Your task to perform on an android device: toggle show notifications on the lock screen Image 0: 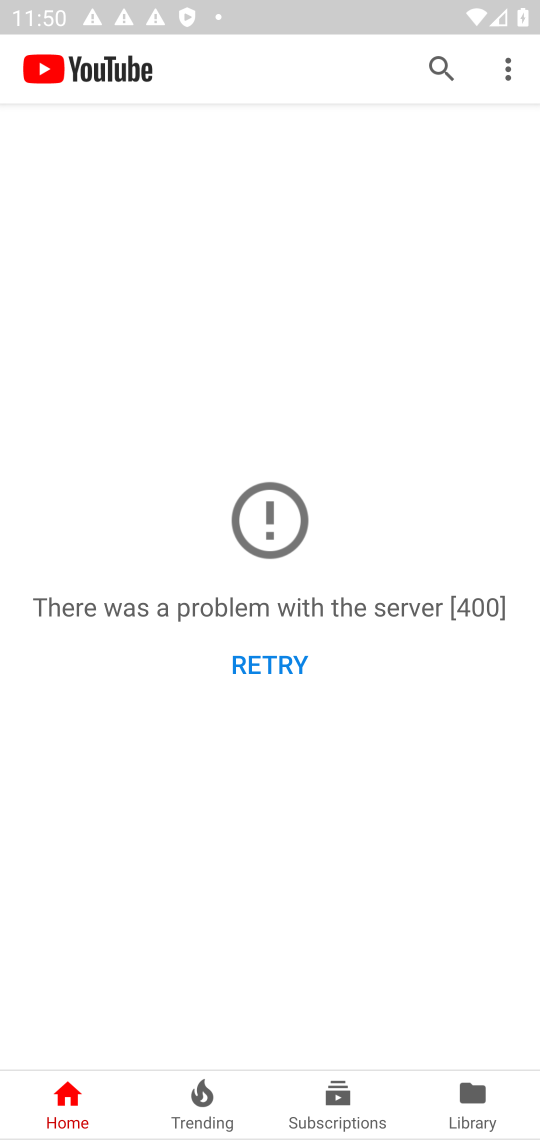
Step 0: press home button
Your task to perform on an android device: toggle show notifications on the lock screen Image 1: 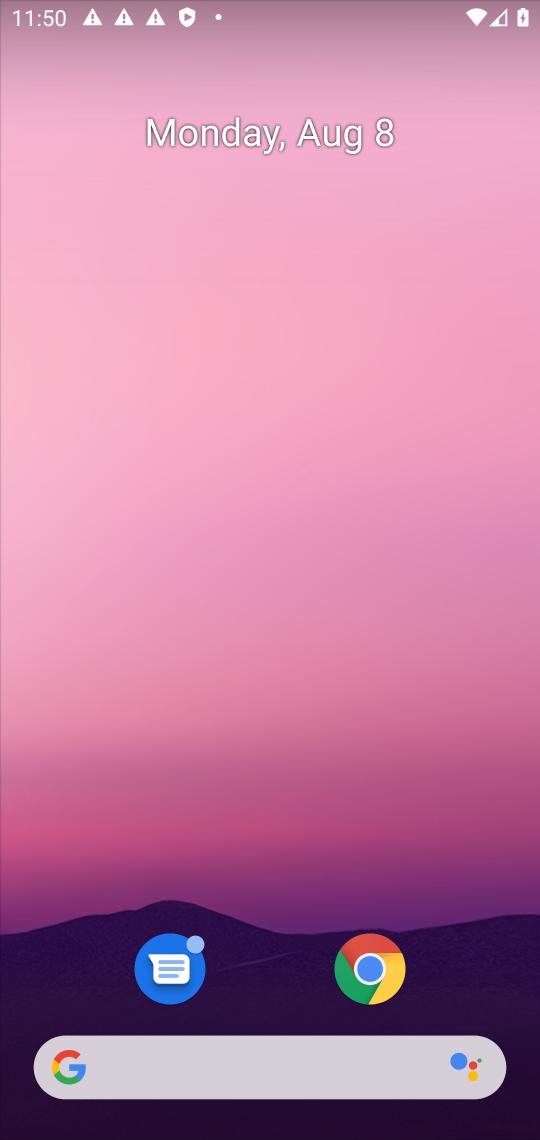
Step 1: drag from (256, 1004) to (124, 140)
Your task to perform on an android device: toggle show notifications on the lock screen Image 2: 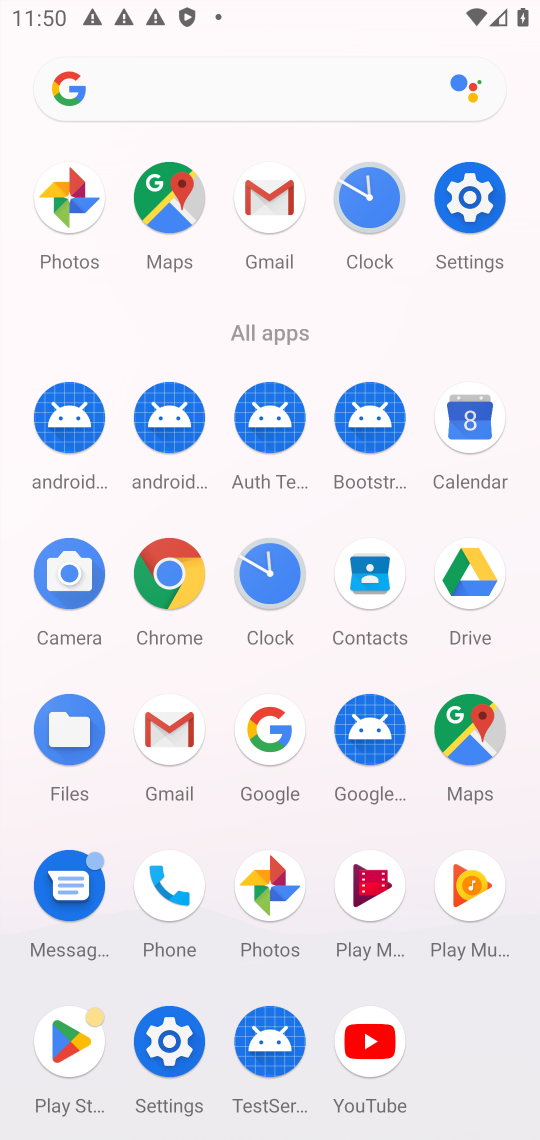
Step 2: click (160, 1064)
Your task to perform on an android device: toggle show notifications on the lock screen Image 3: 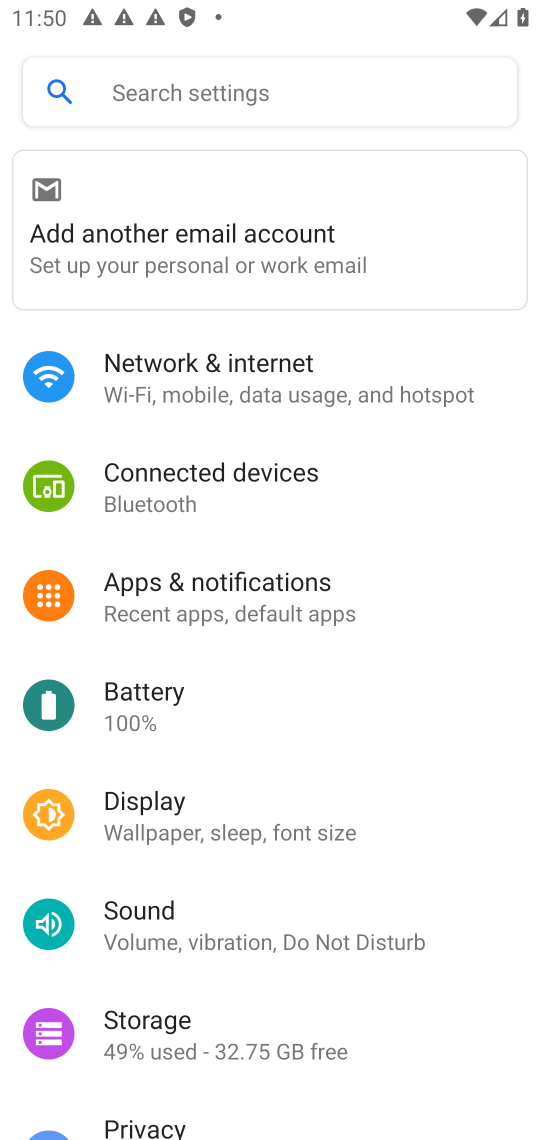
Step 3: click (274, 623)
Your task to perform on an android device: toggle show notifications on the lock screen Image 4: 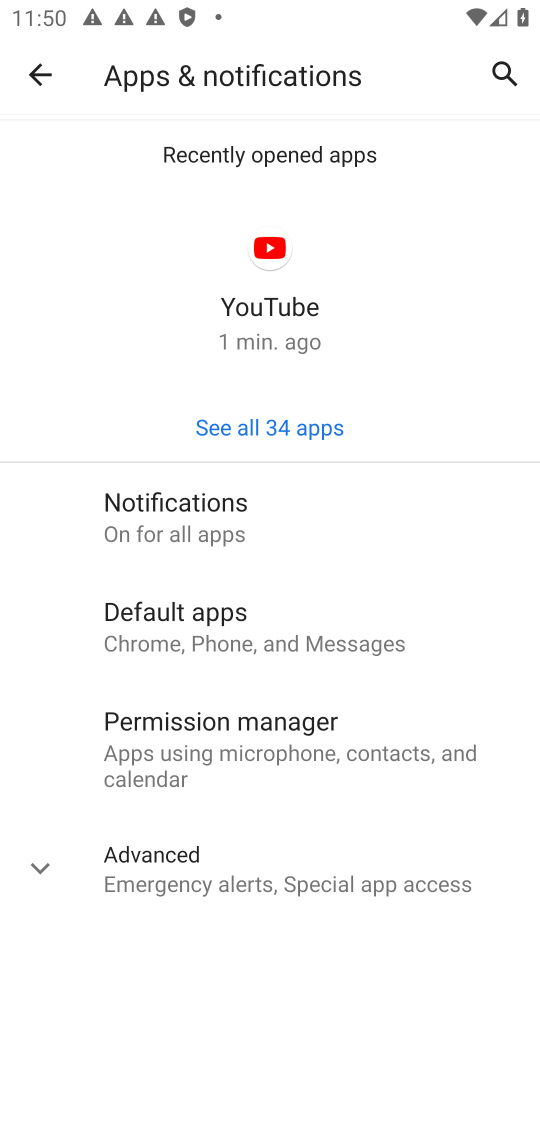
Step 4: click (170, 501)
Your task to perform on an android device: toggle show notifications on the lock screen Image 5: 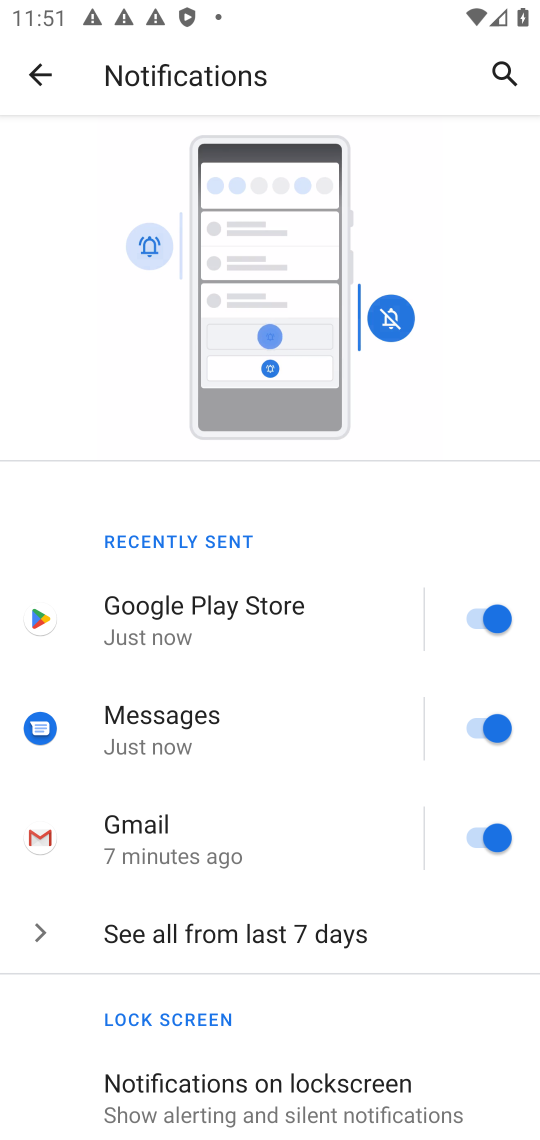
Step 5: click (197, 1077)
Your task to perform on an android device: toggle show notifications on the lock screen Image 6: 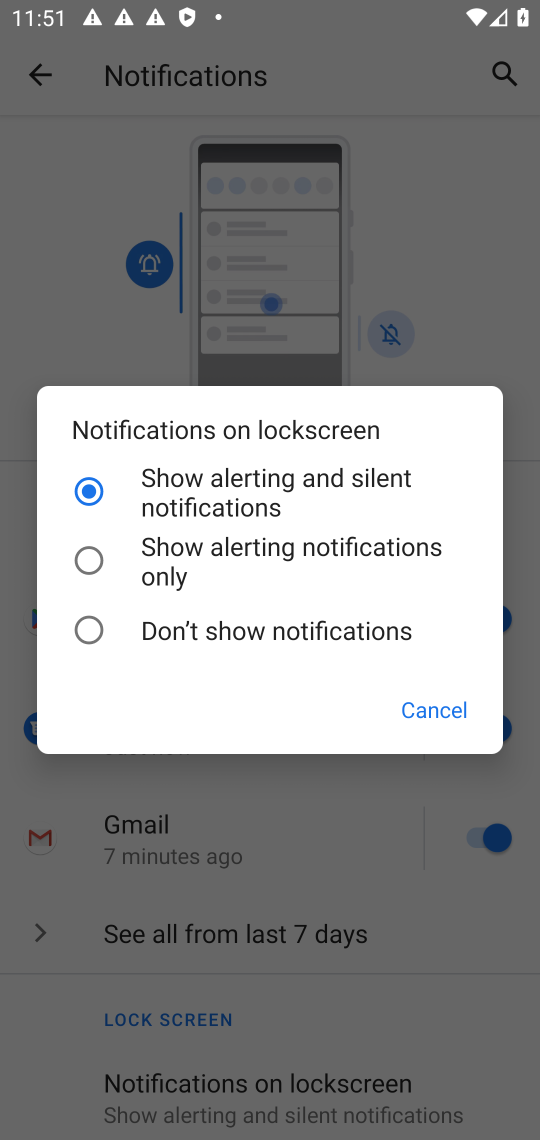
Step 6: click (303, 630)
Your task to perform on an android device: toggle show notifications on the lock screen Image 7: 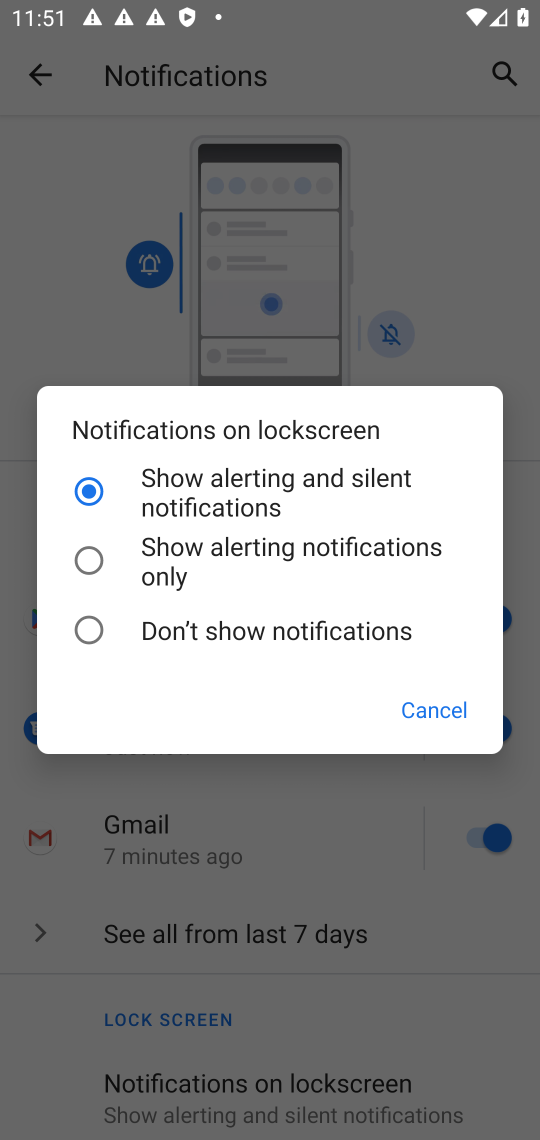
Step 7: task complete